Your task to perform on an android device: Empty the shopping cart on walmart. Image 0: 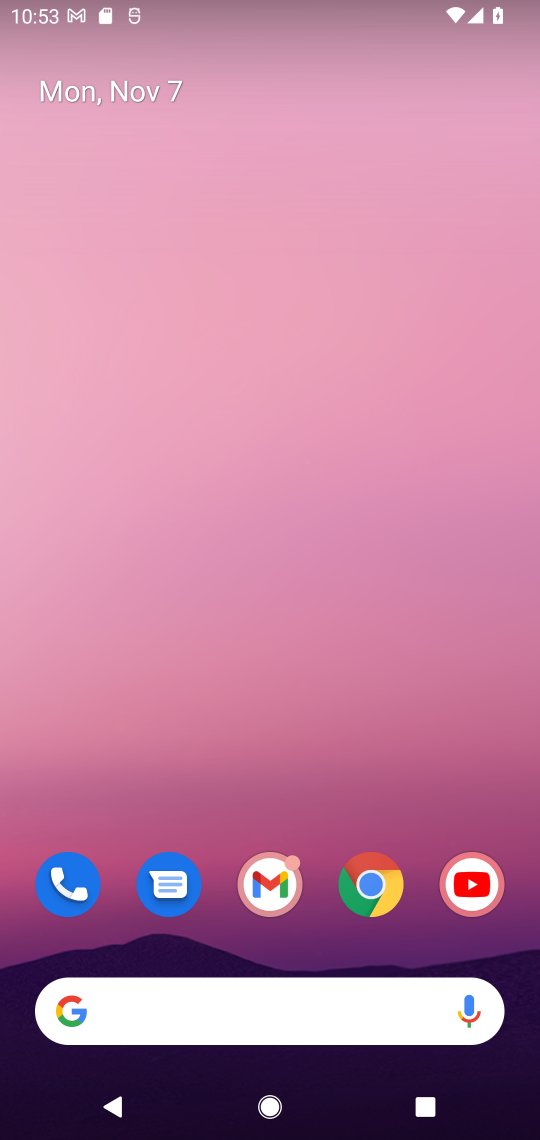
Step 0: click (368, 891)
Your task to perform on an android device: Empty the shopping cart on walmart. Image 1: 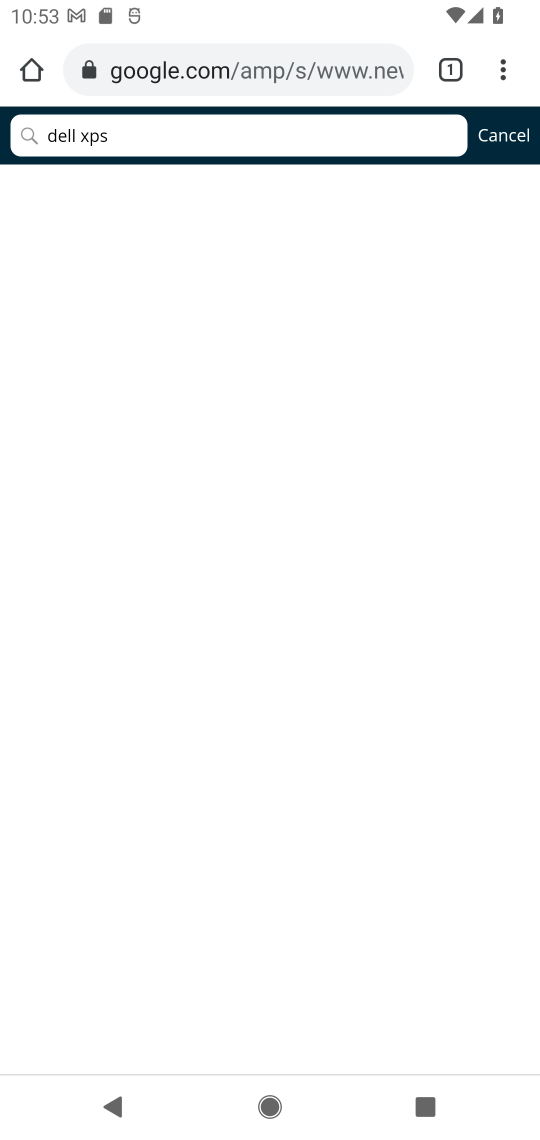
Step 1: click (39, 87)
Your task to perform on an android device: Empty the shopping cart on walmart. Image 2: 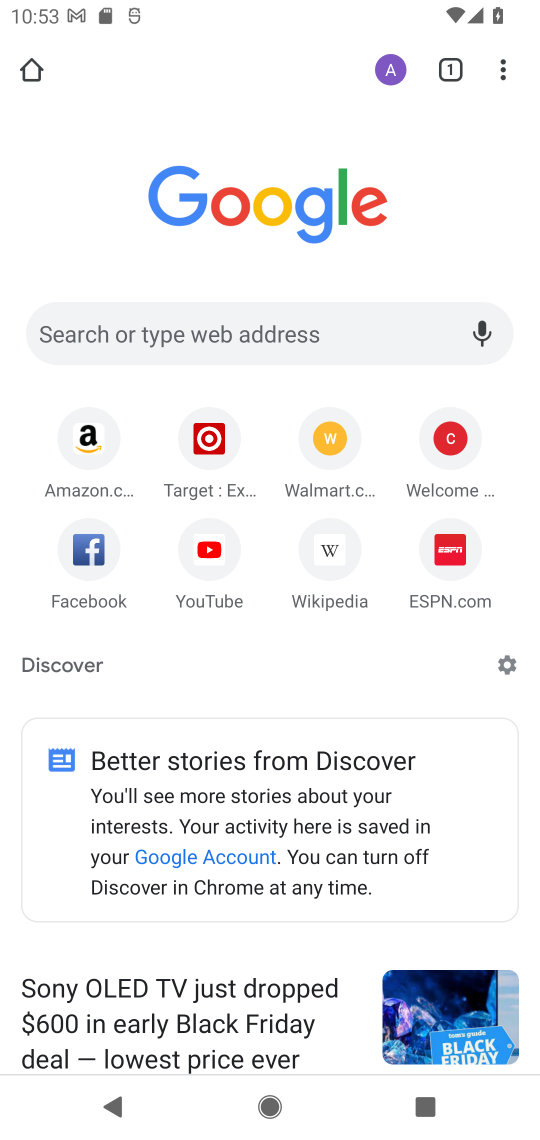
Step 2: click (323, 332)
Your task to perform on an android device: Empty the shopping cart on walmart. Image 3: 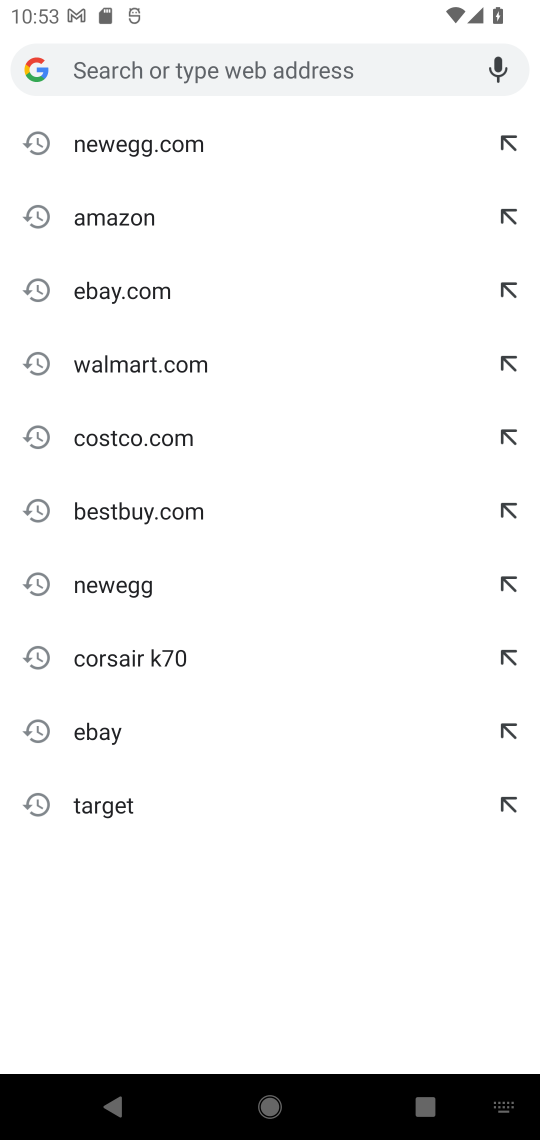
Step 3: click (150, 361)
Your task to perform on an android device: Empty the shopping cart on walmart. Image 4: 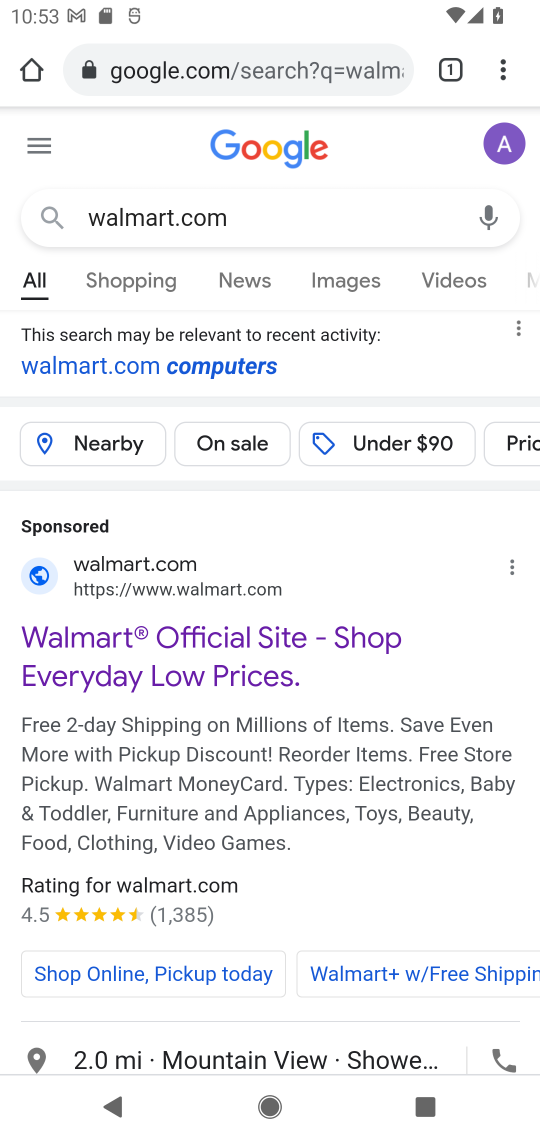
Step 4: click (239, 594)
Your task to perform on an android device: Empty the shopping cart on walmart. Image 5: 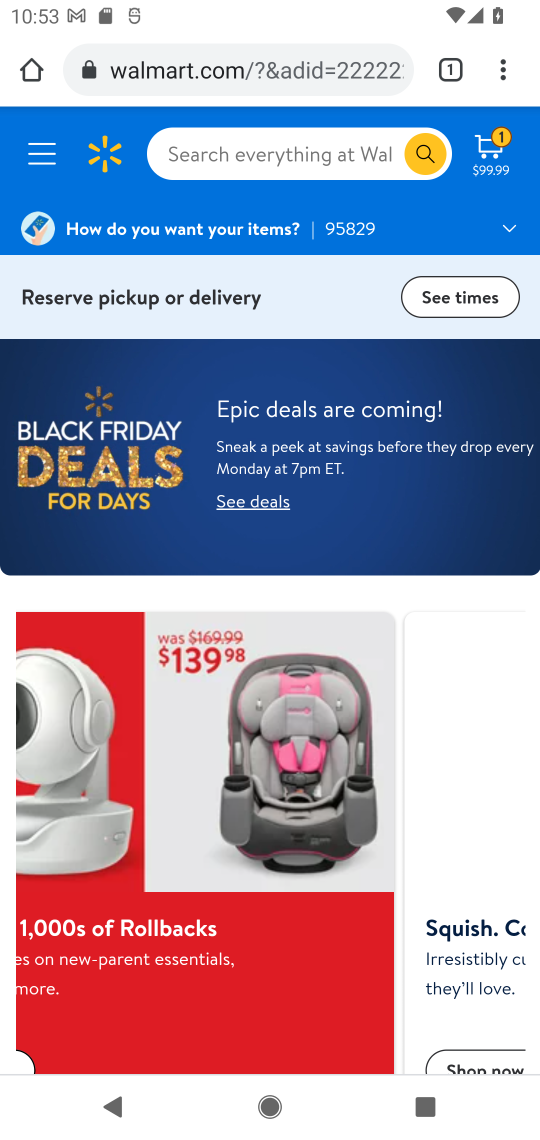
Step 5: click (493, 154)
Your task to perform on an android device: Empty the shopping cart on walmart. Image 6: 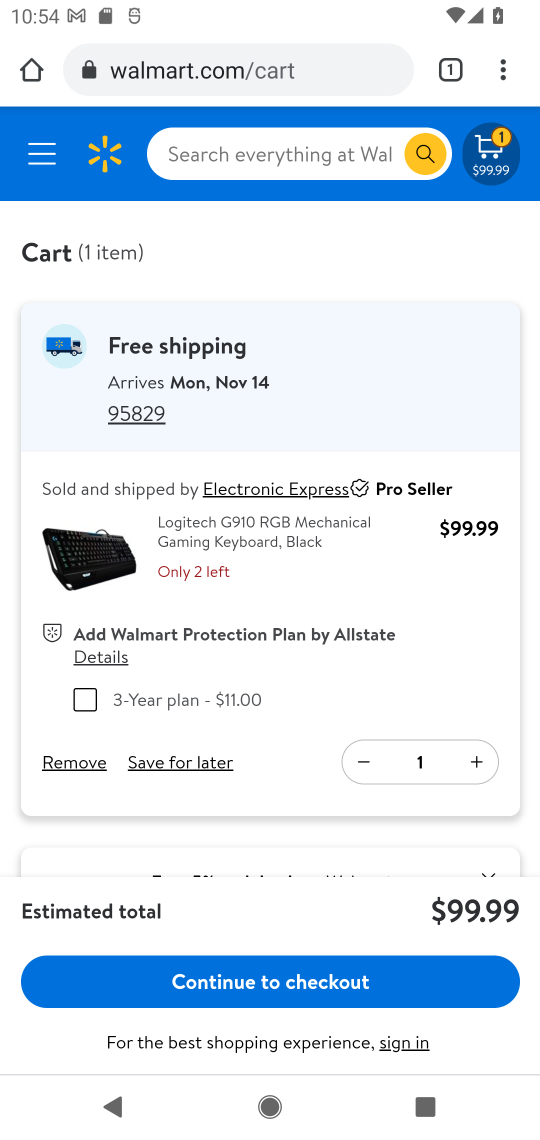
Step 6: click (69, 767)
Your task to perform on an android device: Empty the shopping cart on walmart. Image 7: 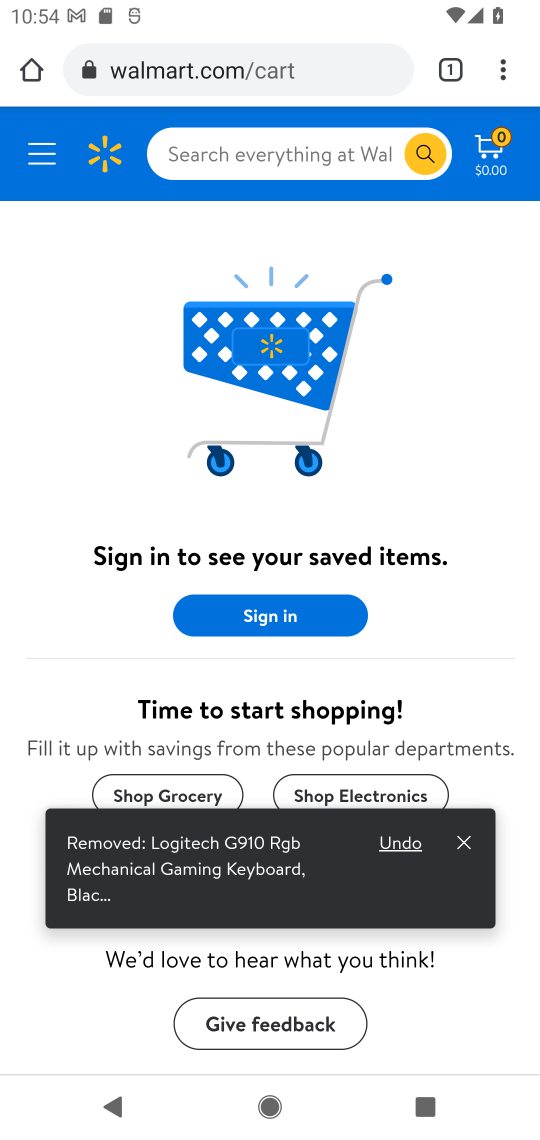
Step 7: task complete